Your task to perform on an android device: Go to settings Image 0: 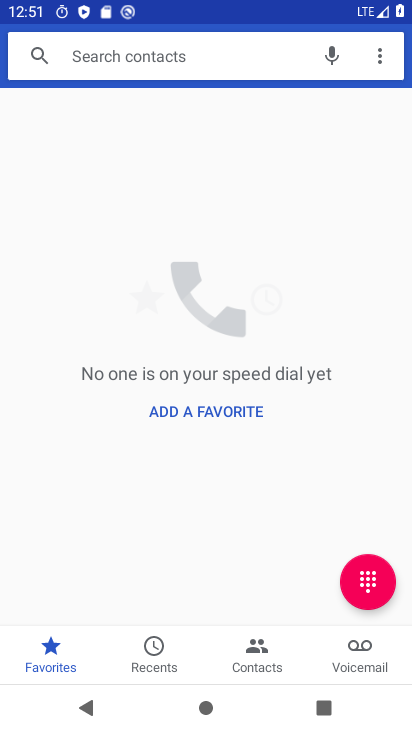
Step 0: press home button
Your task to perform on an android device: Go to settings Image 1: 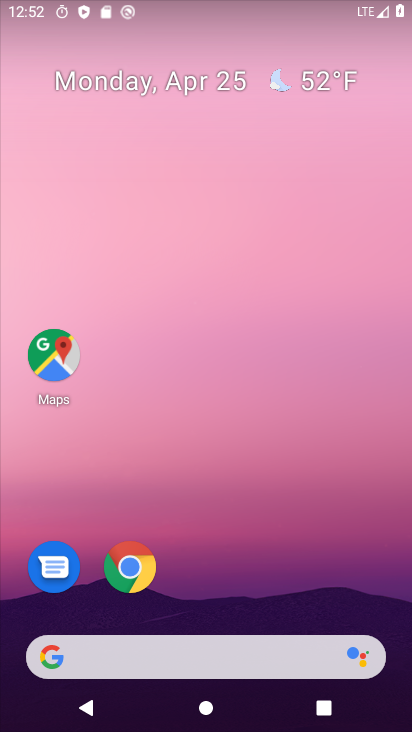
Step 1: drag from (256, 553) to (344, 28)
Your task to perform on an android device: Go to settings Image 2: 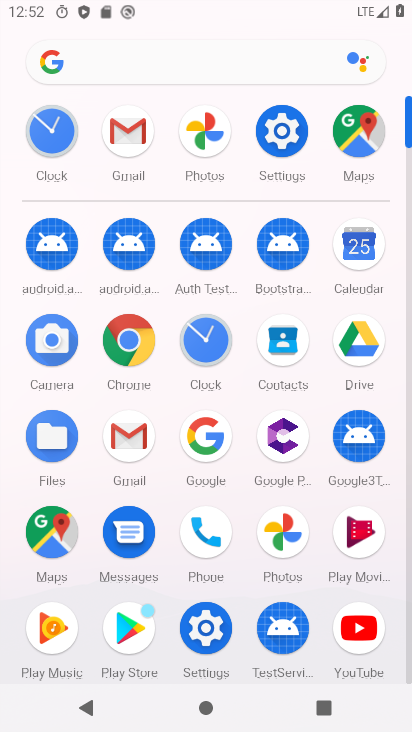
Step 2: click (285, 138)
Your task to perform on an android device: Go to settings Image 3: 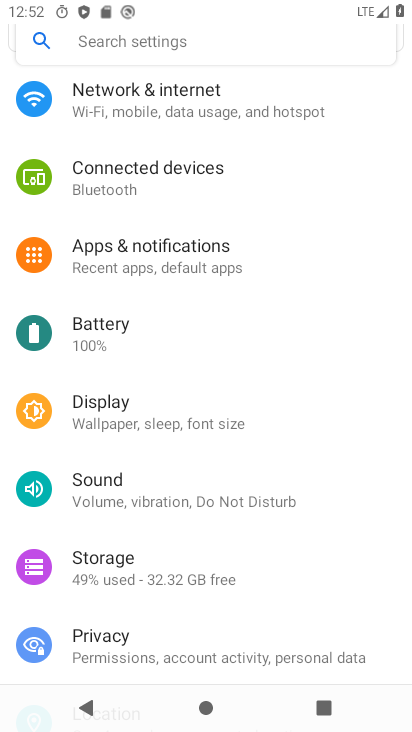
Step 3: task complete